Your task to perform on an android device: move an email to a new category in the gmail app Image 0: 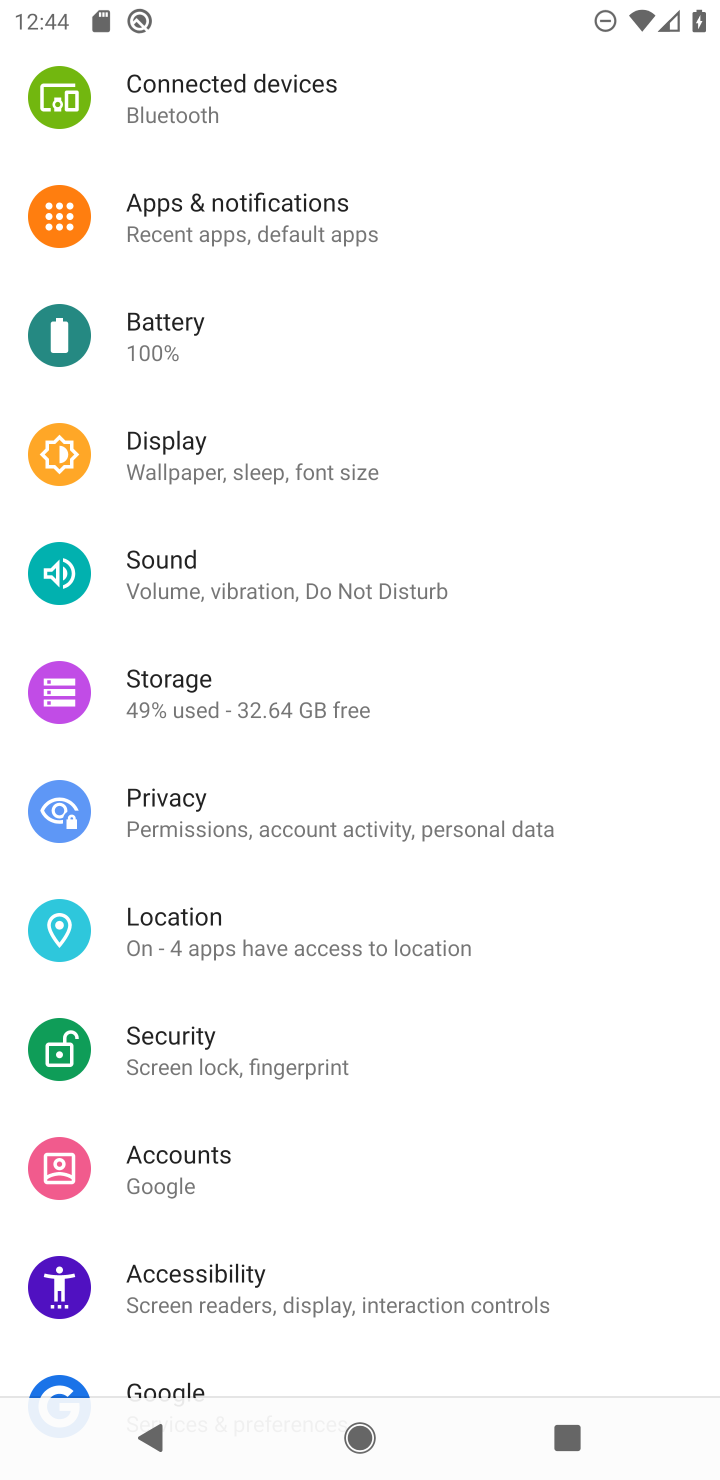
Step 0: press home button
Your task to perform on an android device: move an email to a new category in the gmail app Image 1: 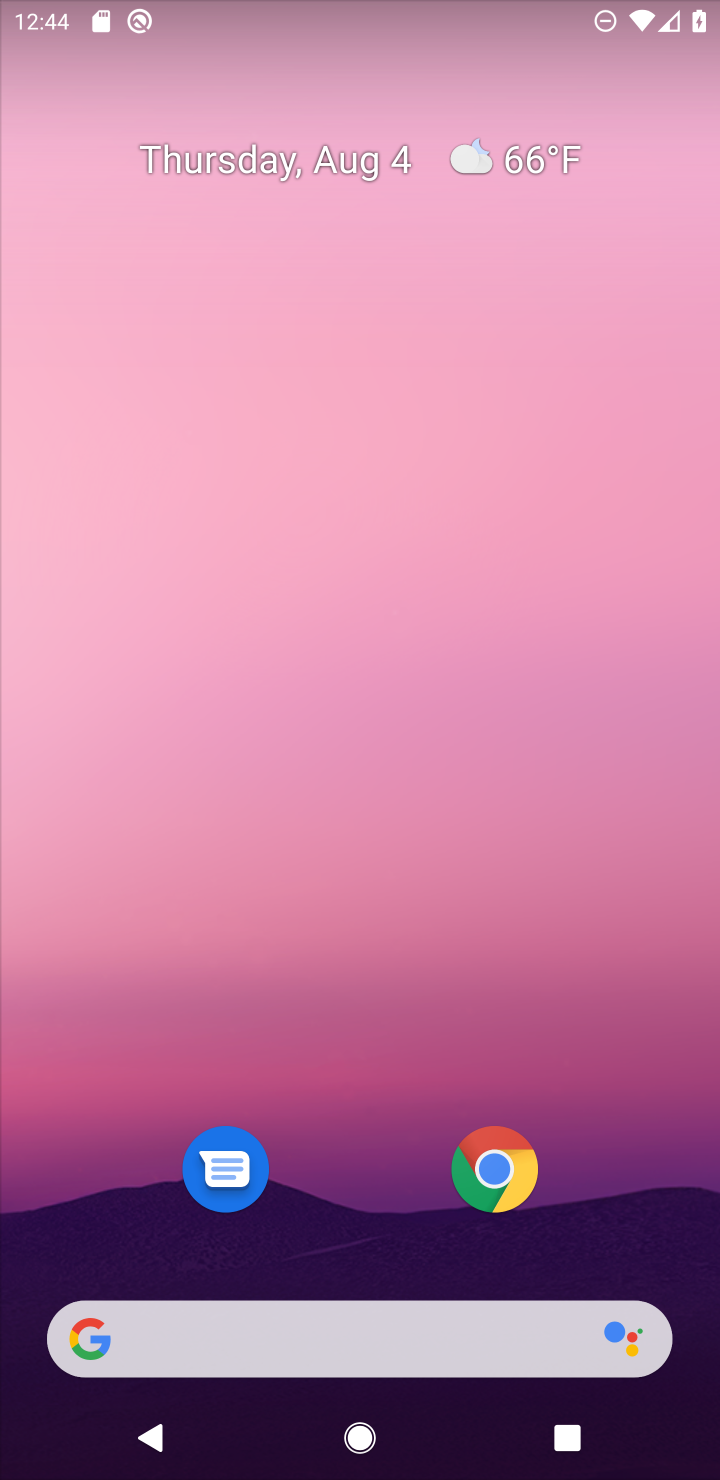
Step 1: drag from (359, 1266) to (402, 86)
Your task to perform on an android device: move an email to a new category in the gmail app Image 2: 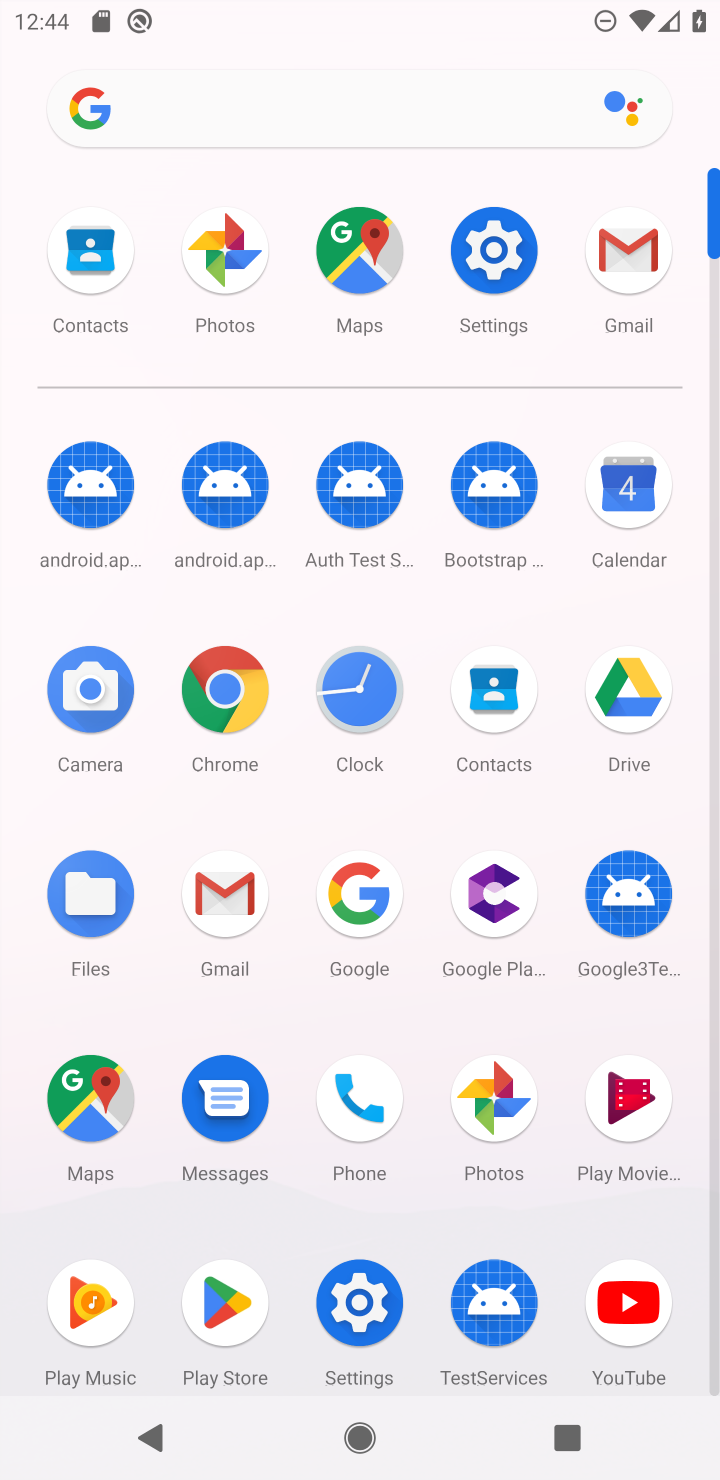
Step 2: click (623, 258)
Your task to perform on an android device: move an email to a new category in the gmail app Image 3: 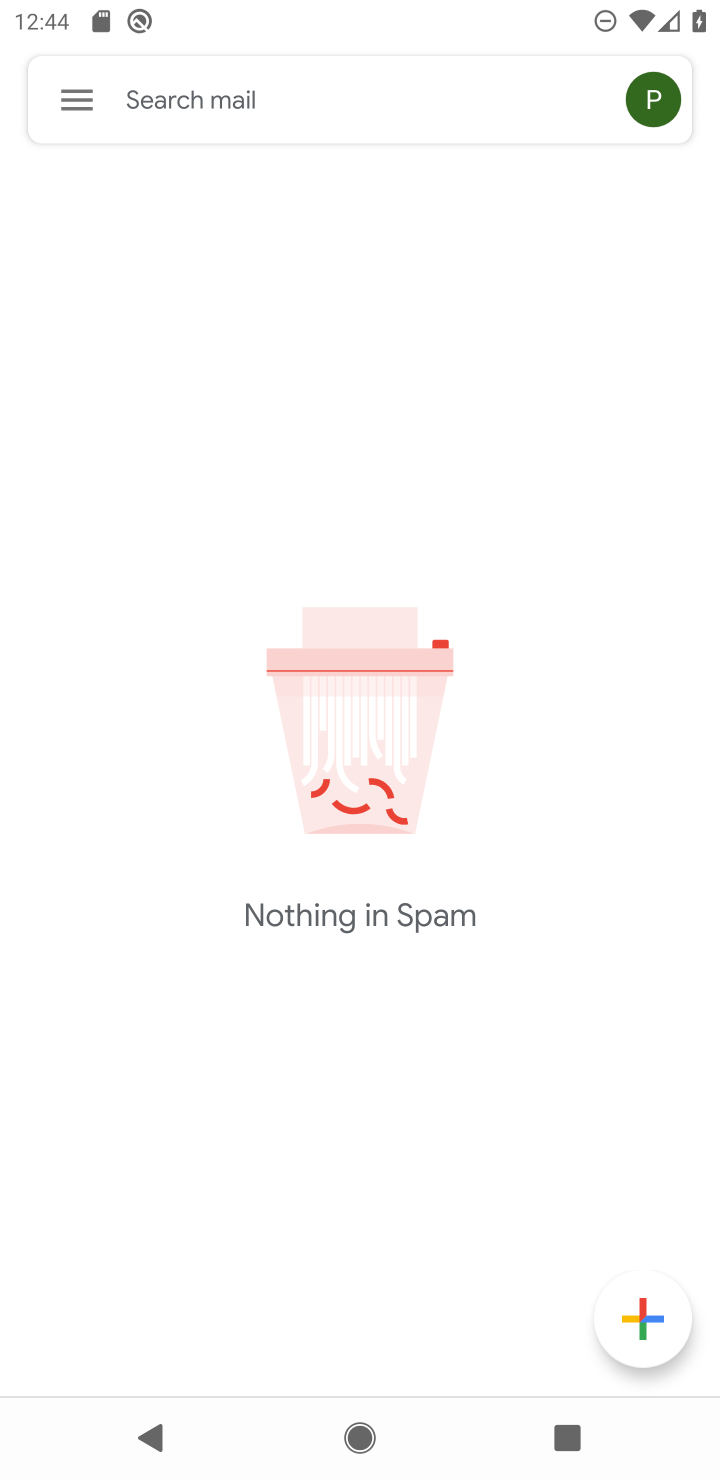
Step 3: click (70, 97)
Your task to perform on an android device: move an email to a new category in the gmail app Image 4: 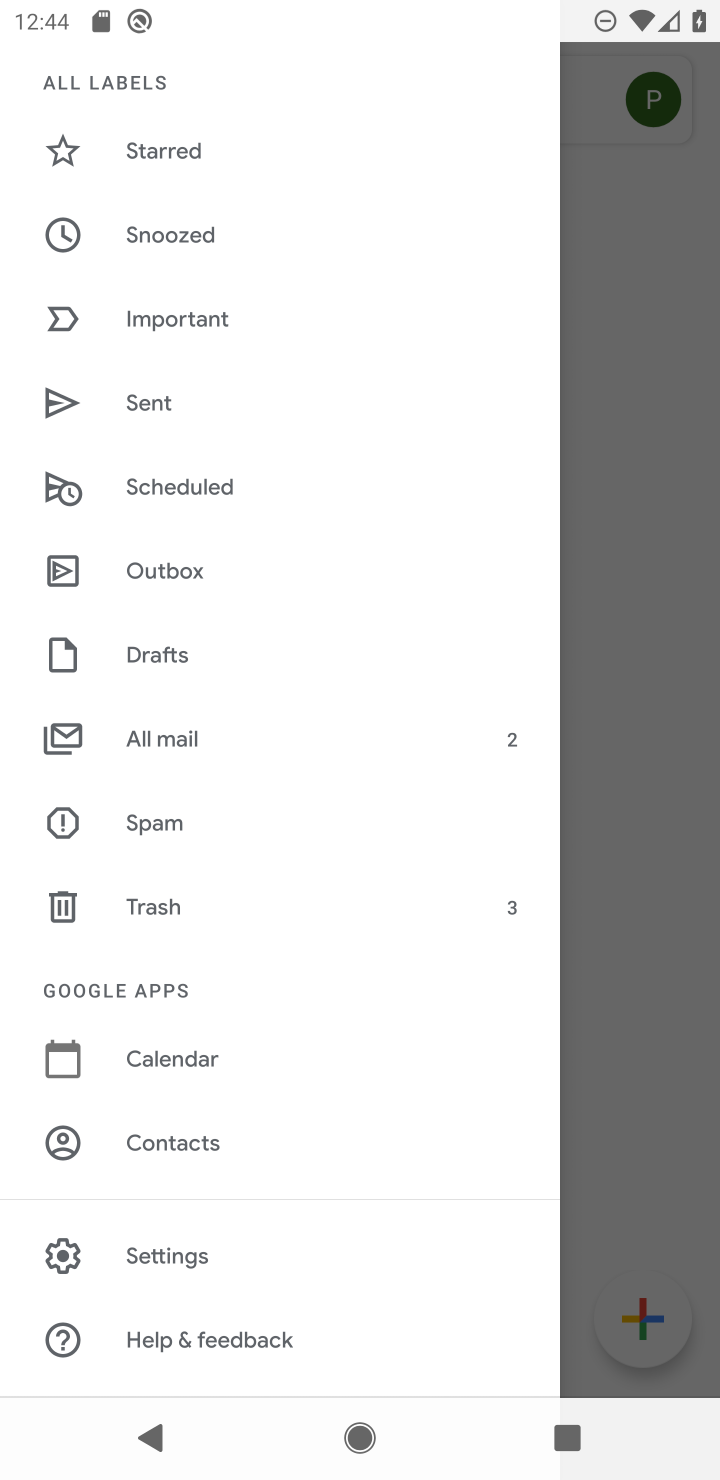
Step 4: click (144, 746)
Your task to perform on an android device: move an email to a new category in the gmail app Image 5: 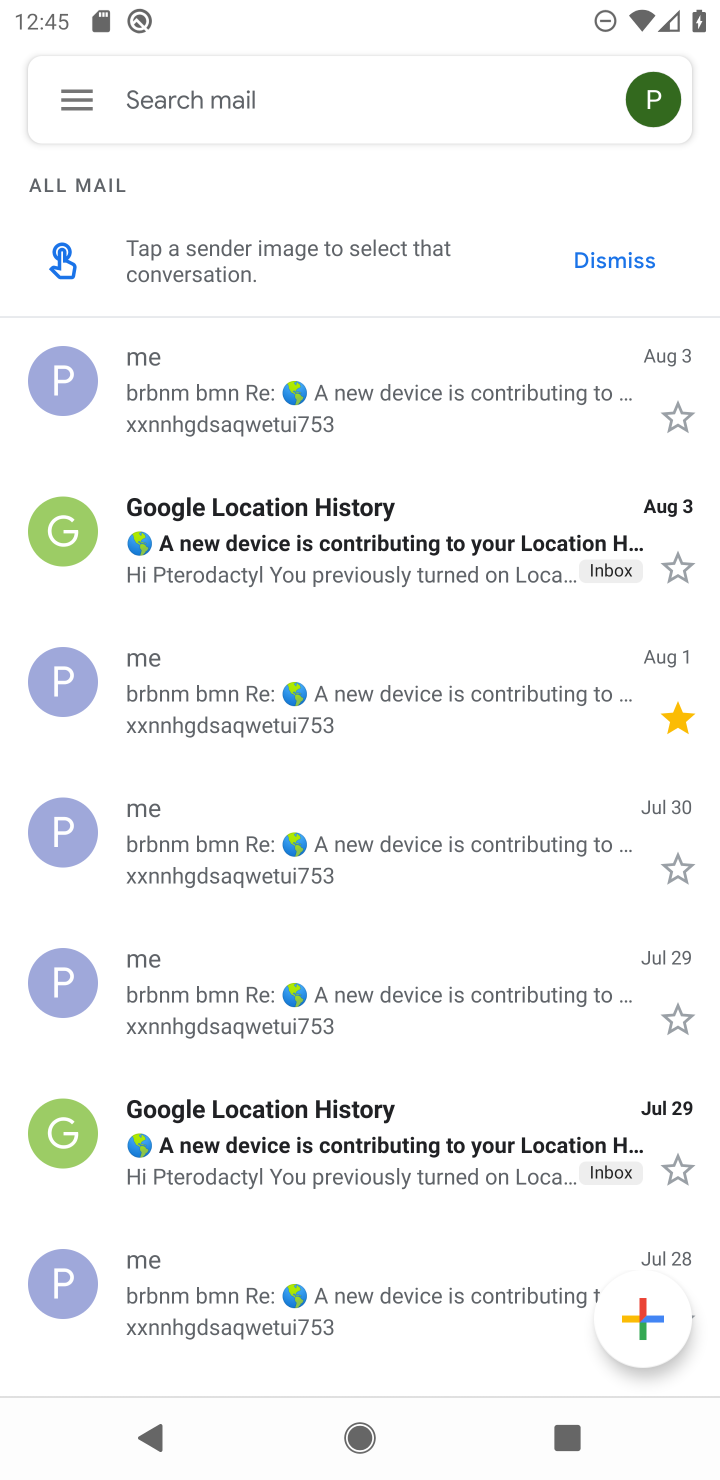
Step 5: click (239, 412)
Your task to perform on an android device: move an email to a new category in the gmail app Image 6: 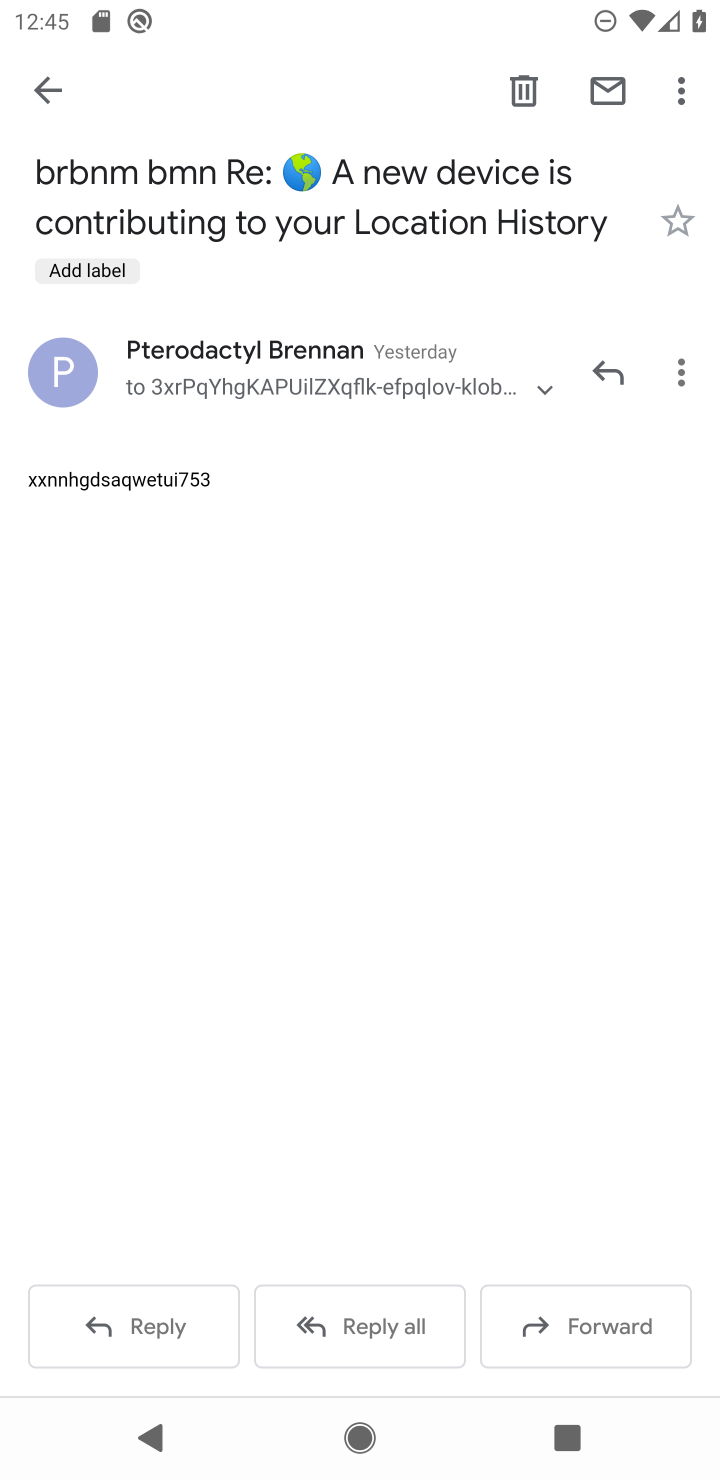
Step 6: click (680, 90)
Your task to perform on an android device: move an email to a new category in the gmail app Image 7: 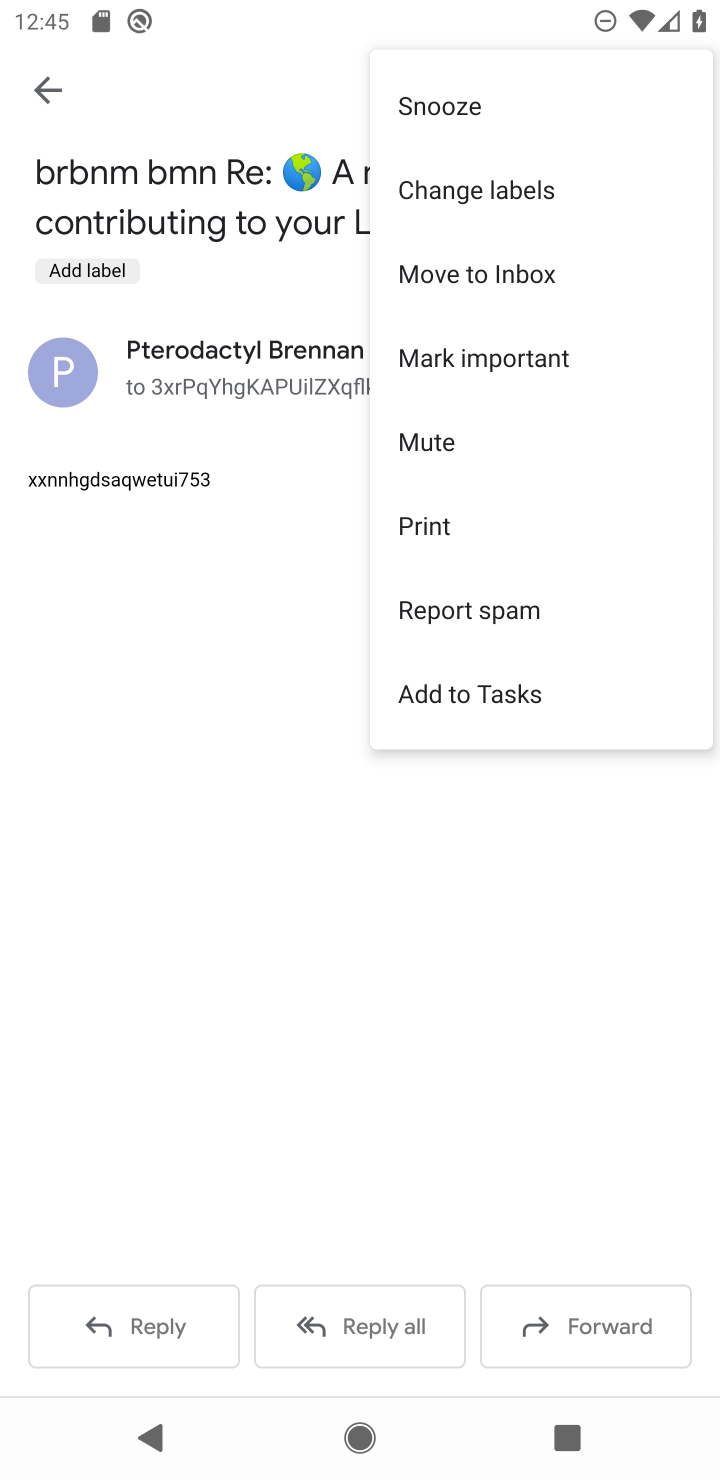
Step 7: click (466, 348)
Your task to perform on an android device: move an email to a new category in the gmail app Image 8: 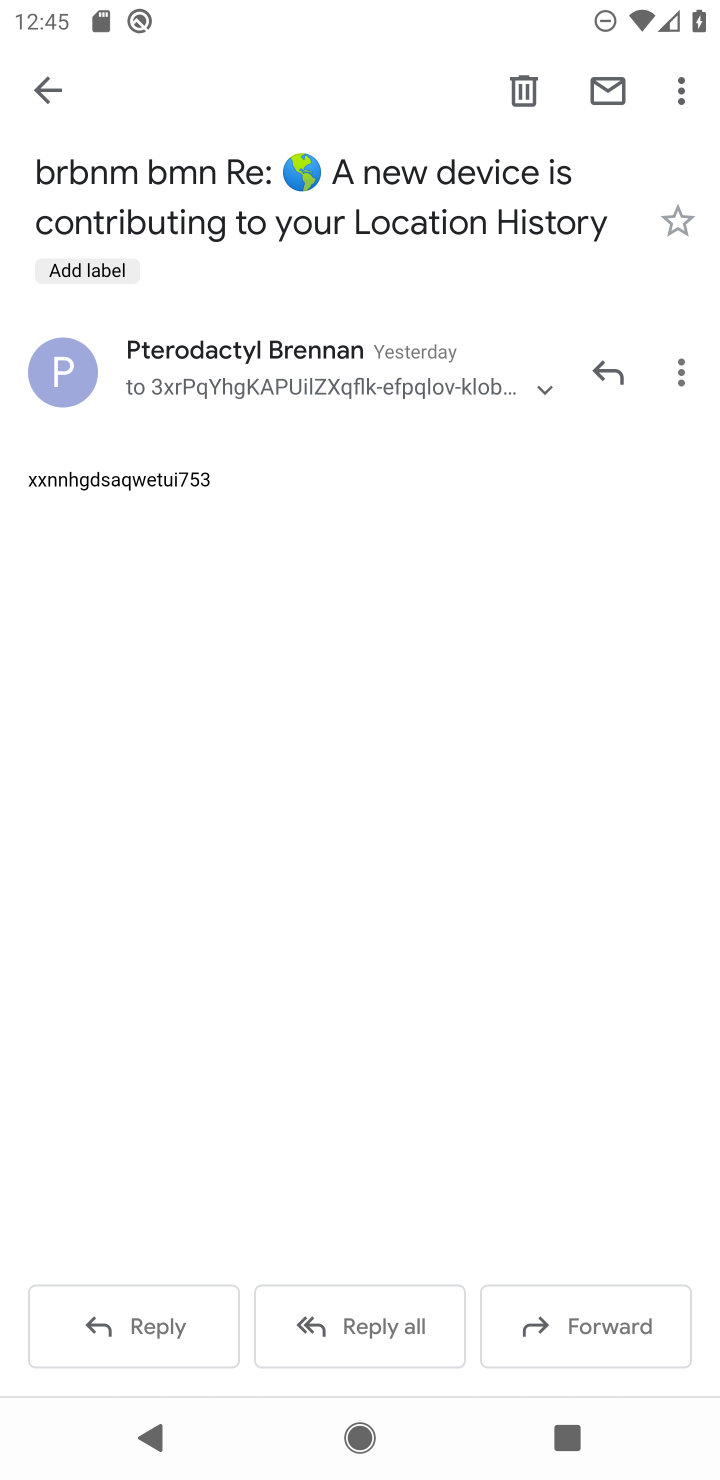
Step 8: task complete